Your task to perform on an android device: toggle translation in the chrome app Image 0: 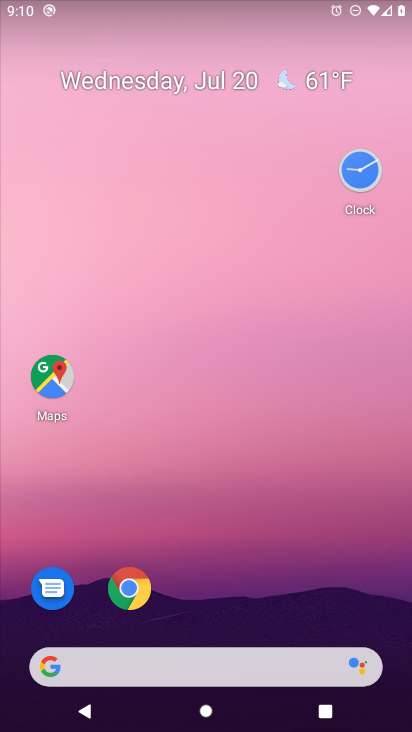
Step 0: click (132, 594)
Your task to perform on an android device: toggle translation in the chrome app Image 1: 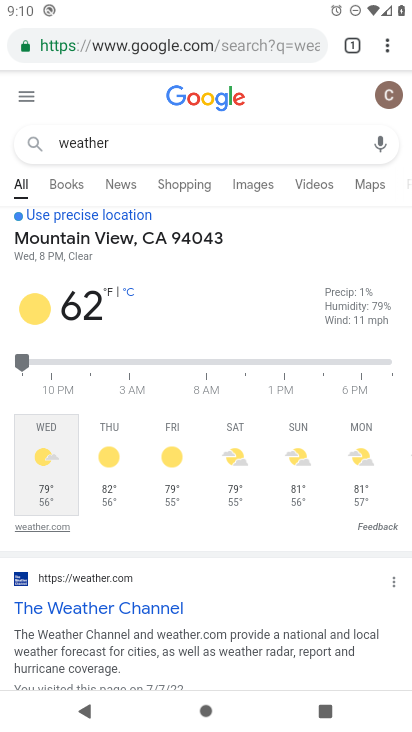
Step 1: click (386, 43)
Your task to perform on an android device: toggle translation in the chrome app Image 2: 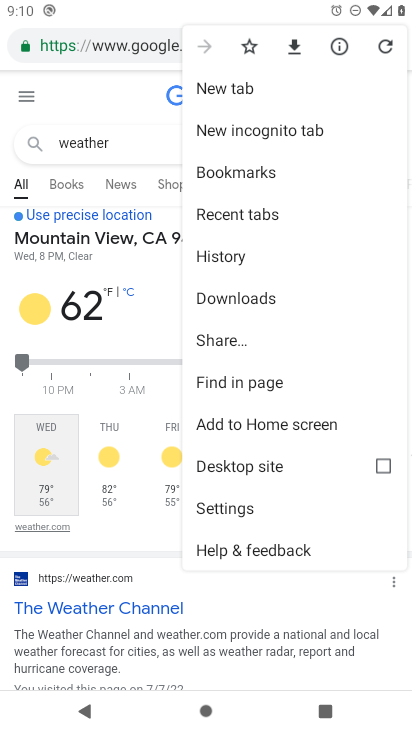
Step 2: click (233, 502)
Your task to perform on an android device: toggle translation in the chrome app Image 3: 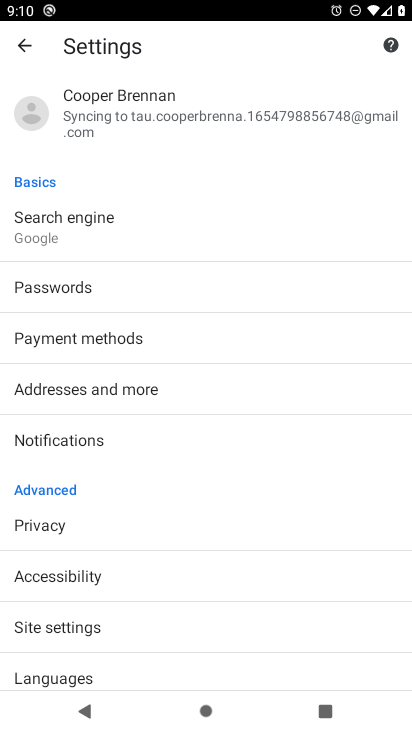
Step 3: click (46, 619)
Your task to perform on an android device: toggle translation in the chrome app Image 4: 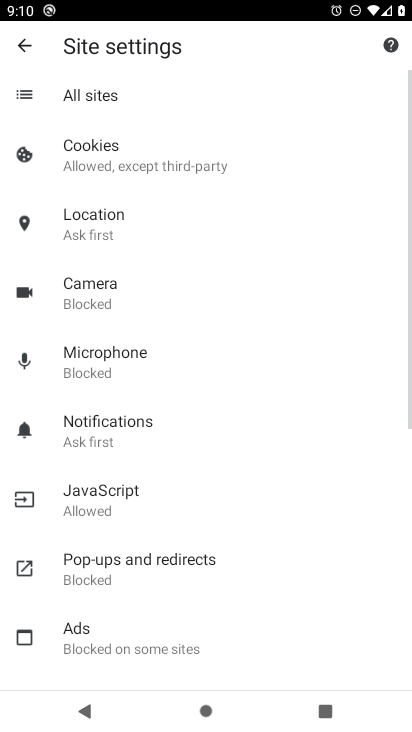
Step 4: click (37, 42)
Your task to perform on an android device: toggle translation in the chrome app Image 5: 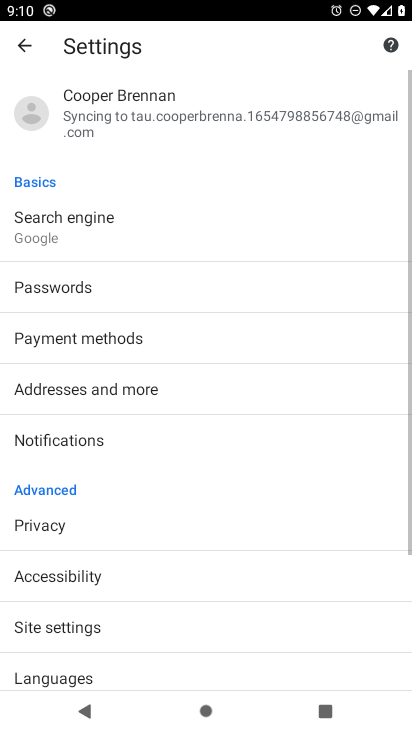
Step 5: click (89, 669)
Your task to perform on an android device: toggle translation in the chrome app Image 6: 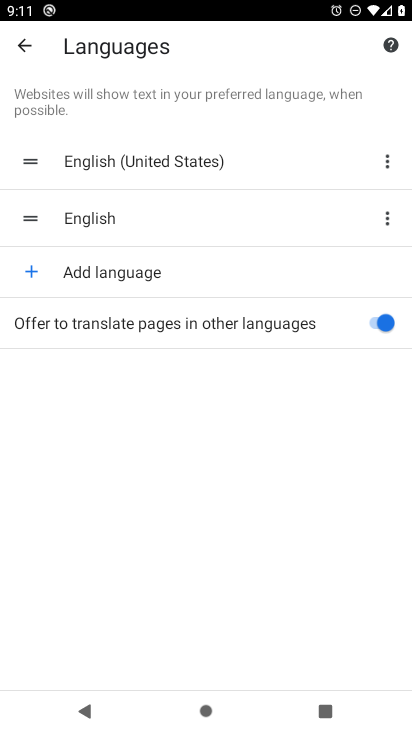
Step 6: task complete